Your task to perform on an android device: open a bookmark in the chrome app Image 0: 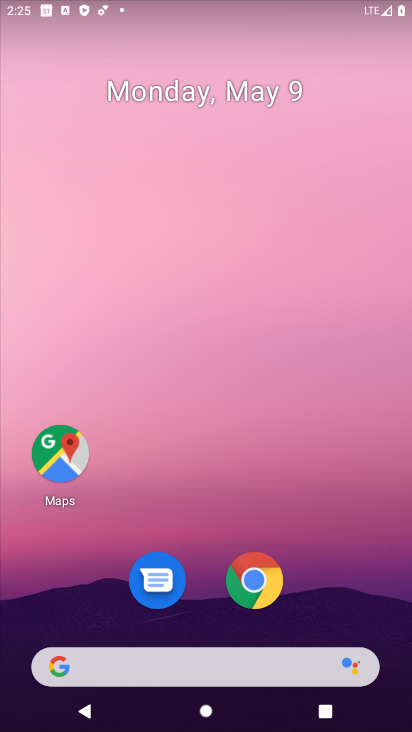
Step 0: click (259, 584)
Your task to perform on an android device: open a bookmark in the chrome app Image 1: 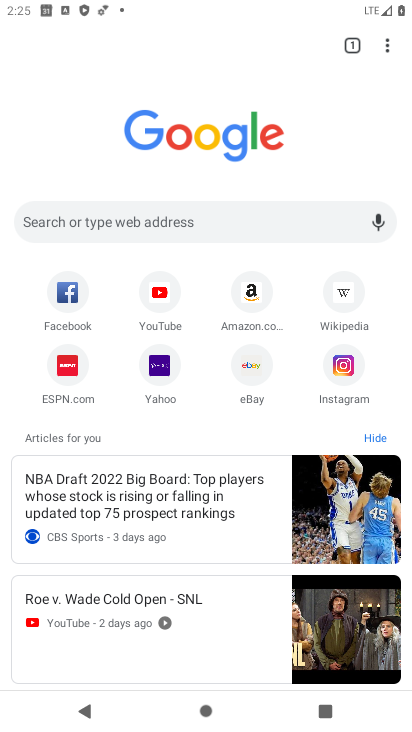
Step 1: click (381, 35)
Your task to perform on an android device: open a bookmark in the chrome app Image 2: 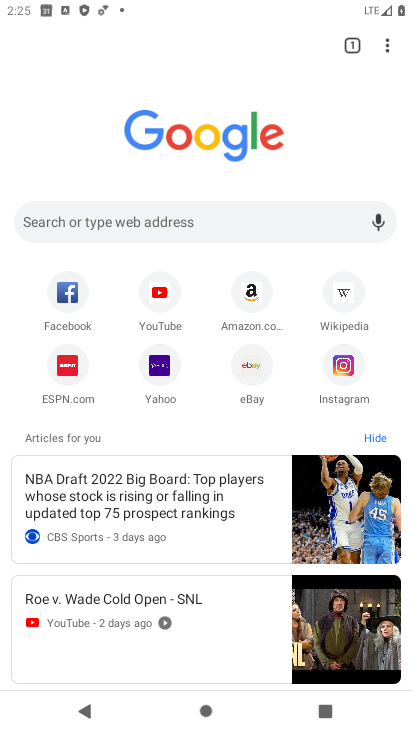
Step 2: click (390, 32)
Your task to perform on an android device: open a bookmark in the chrome app Image 3: 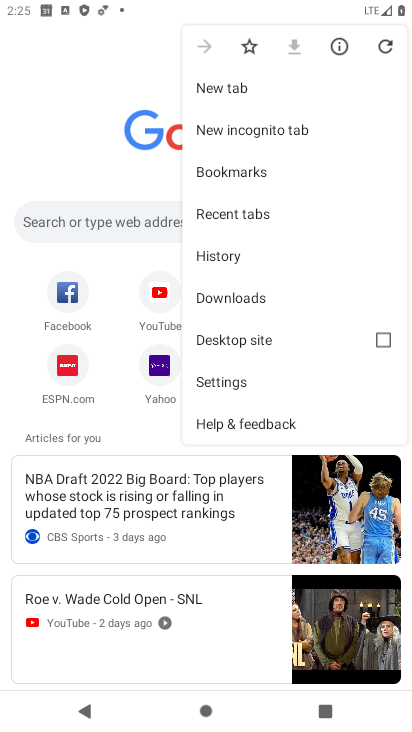
Step 3: click (261, 162)
Your task to perform on an android device: open a bookmark in the chrome app Image 4: 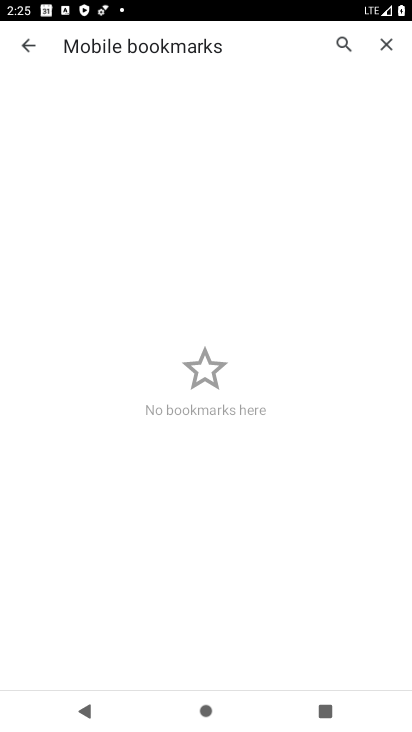
Step 4: task complete